Your task to perform on an android device: Go to Google maps Image 0: 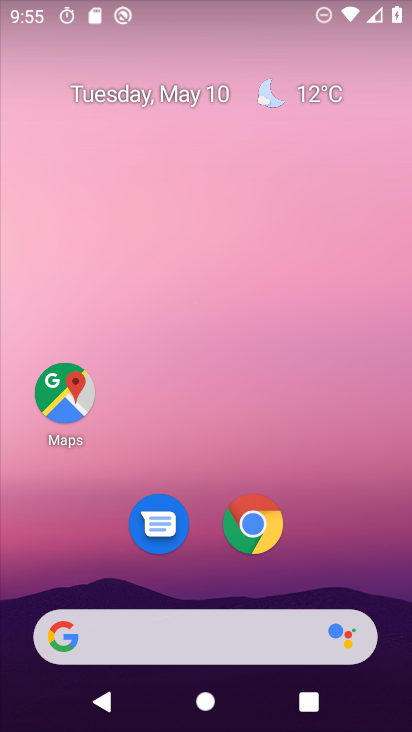
Step 0: click (61, 398)
Your task to perform on an android device: Go to Google maps Image 1: 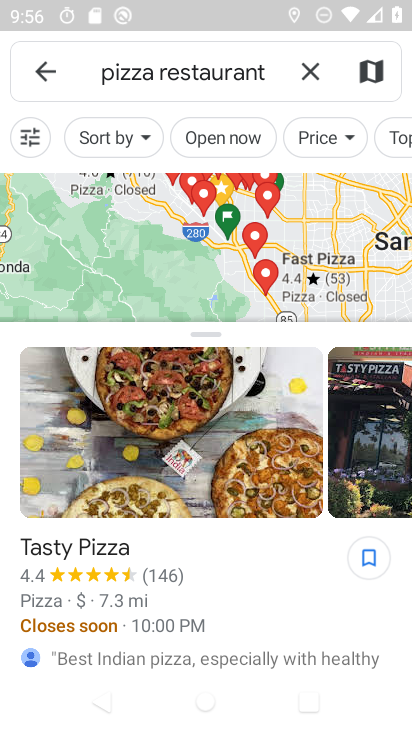
Step 1: click (308, 68)
Your task to perform on an android device: Go to Google maps Image 2: 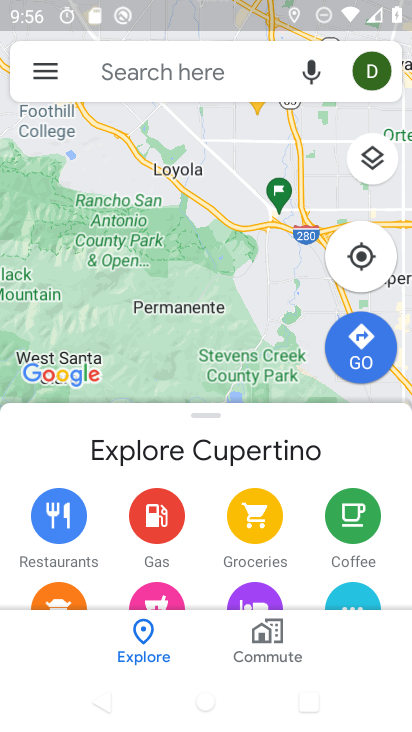
Step 2: task complete